Your task to perform on an android device: toggle data saver in the chrome app Image 0: 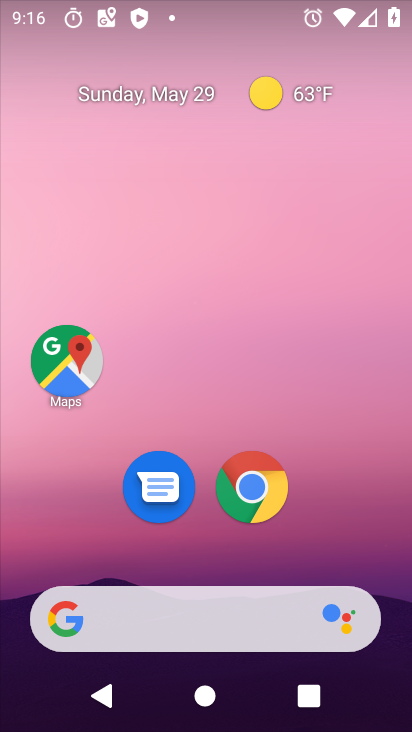
Step 0: click (279, 476)
Your task to perform on an android device: toggle data saver in the chrome app Image 1: 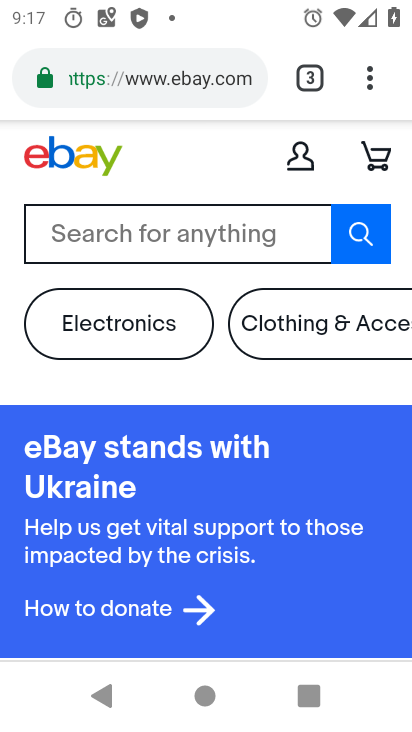
Step 1: click (371, 81)
Your task to perform on an android device: toggle data saver in the chrome app Image 2: 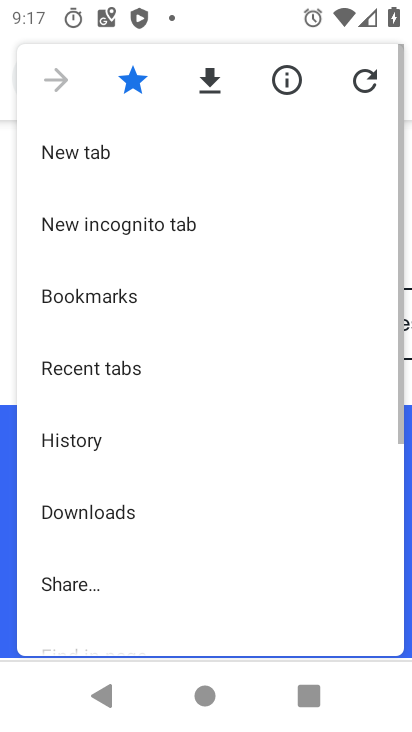
Step 2: drag from (168, 430) to (164, 102)
Your task to perform on an android device: toggle data saver in the chrome app Image 3: 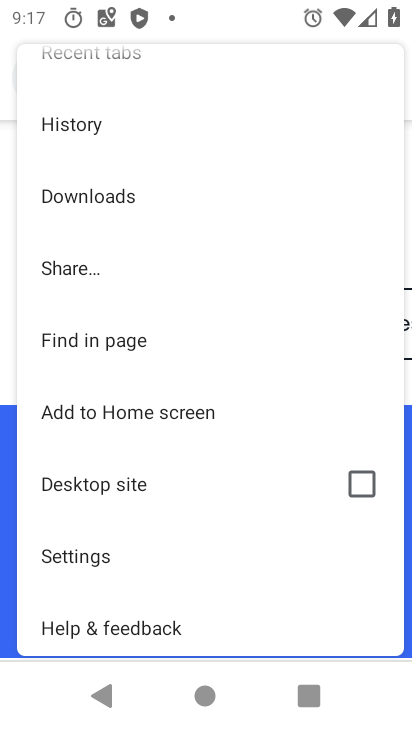
Step 3: drag from (146, 511) to (171, 270)
Your task to perform on an android device: toggle data saver in the chrome app Image 4: 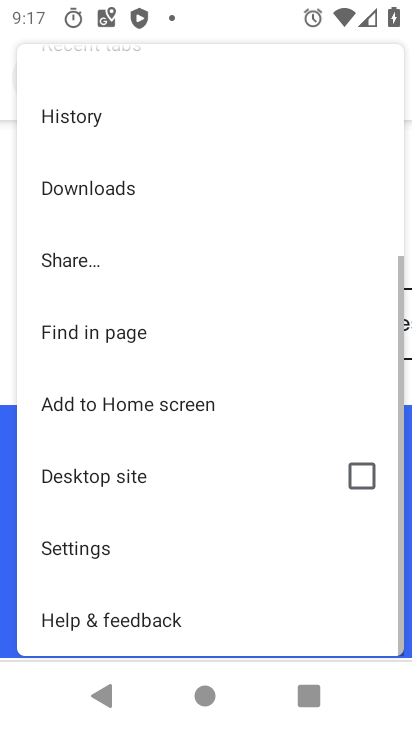
Step 4: click (103, 551)
Your task to perform on an android device: toggle data saver in the chrome app Image 5: 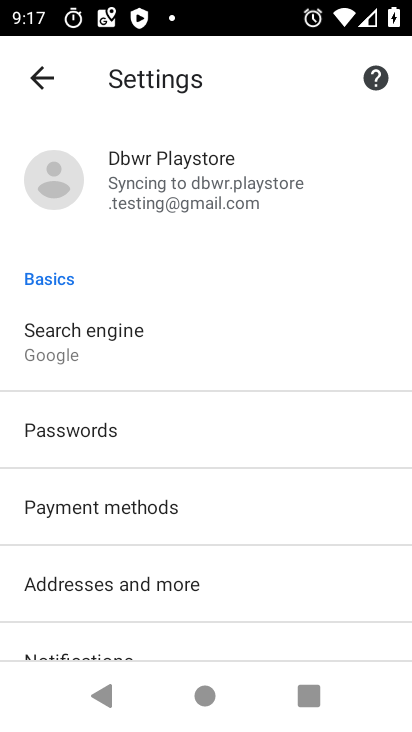
Step 5: drag from (195, 514) to (374, 16)
Your task to perform on an android device: toggle data saver in the chrome app Image 6: 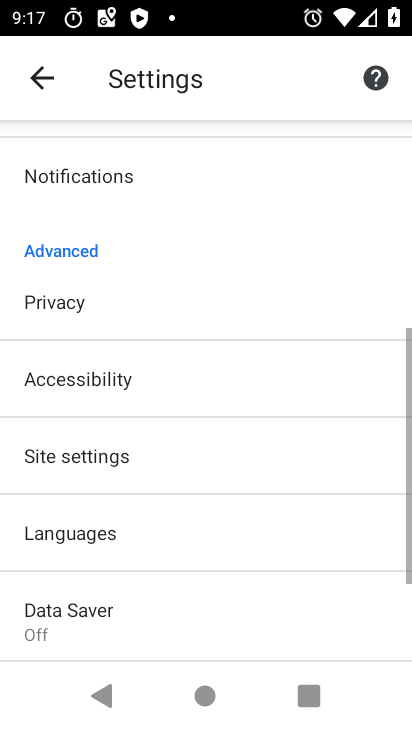
Step 6: drag from (222, 589) to (280, 253)
Your task to perform on an android device: toggle data saver in the chrome app Image 7: 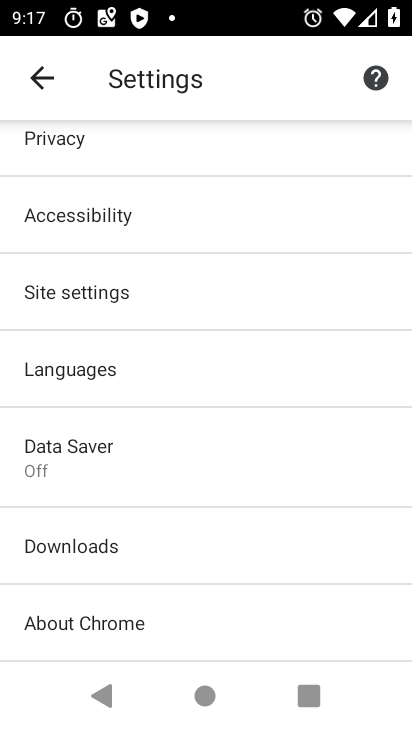
Step 7: click (176, 462)
Your task to perform on an android device: toggle data saver in the chrome app Image 8: 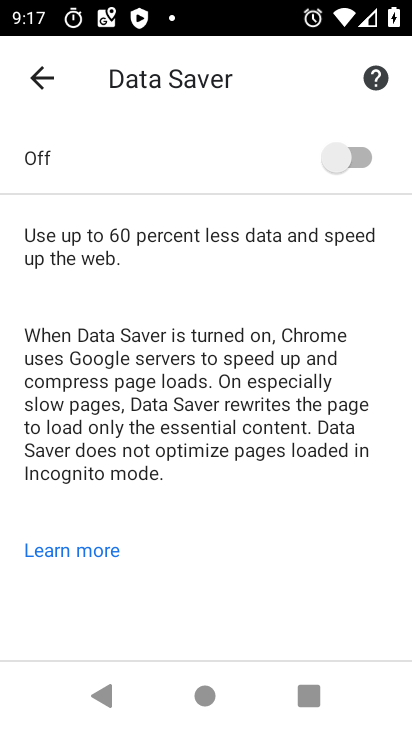
Step 8: click (350, 165)
Your task to perform on an android device: toggle data saver in the chrome app Image 9: 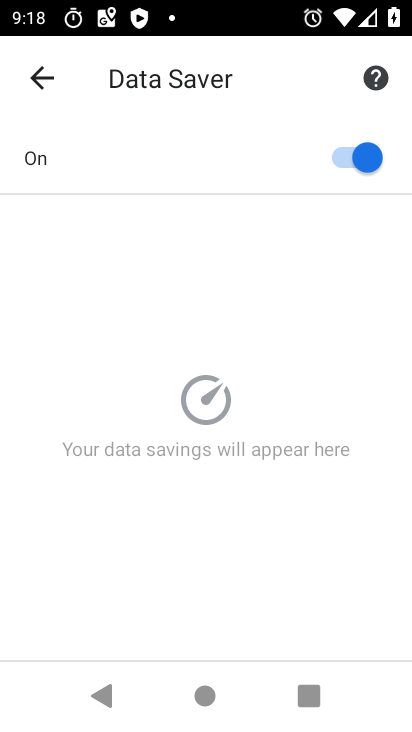
Step 9: task complete